Your task to perform on an android device: allow notifications from all sites in the chrome app Image 0: 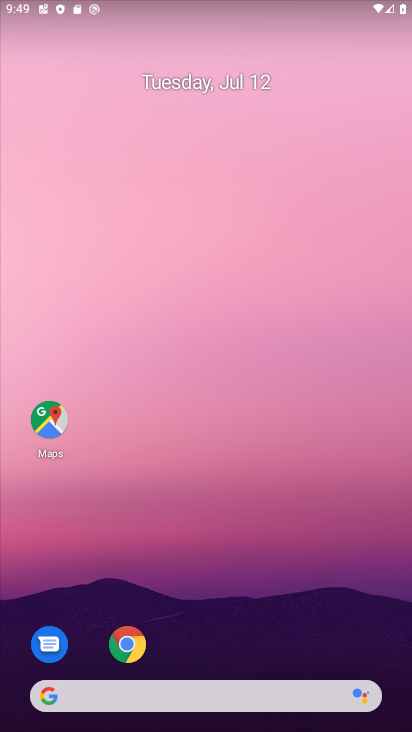
Step 0: click (120, 645)
Your task to perform on an android device: allow notifications from all sites in the chrome app Image 1: 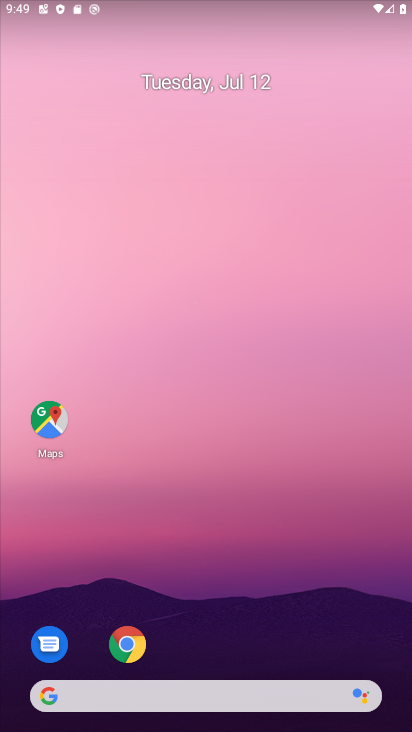
Step 1: click (120, 645)
Your task to perform on an android device: allow notifications from all sites in the chrome app Image 2: 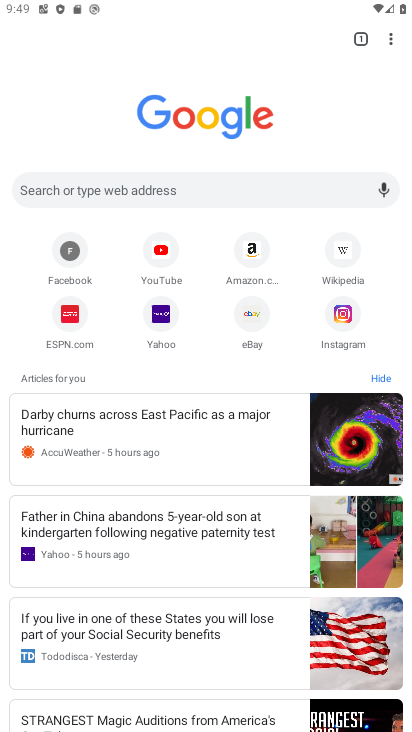
Step 2: click (393, 38)
Your task to perform on an android device: allow notifications from all sites in the chrome app Image 3: 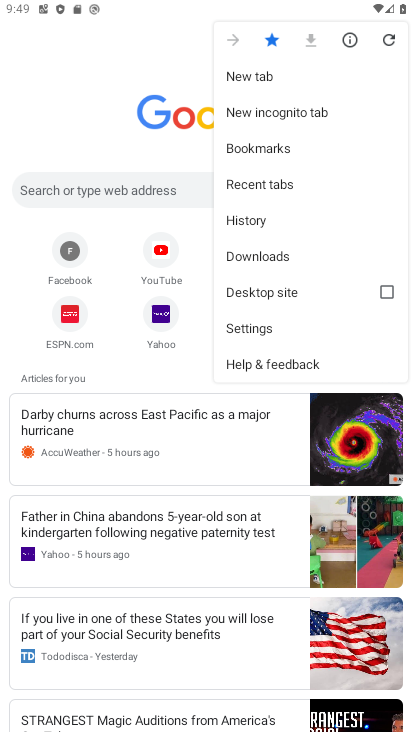
Step 3: click (264, 327)
Your task to perform on an android device: allow notifications from all sites in the chrome app Image 4: 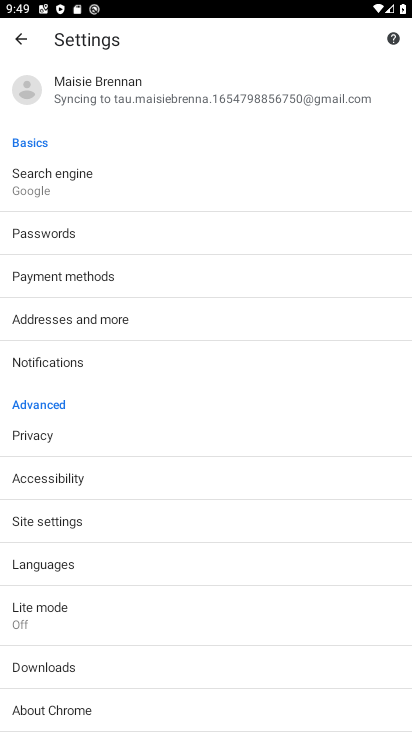
Step 4: click (97, 362)
Your task to perform on an android device: allow notifications from all sites in the chrome app Image 5: 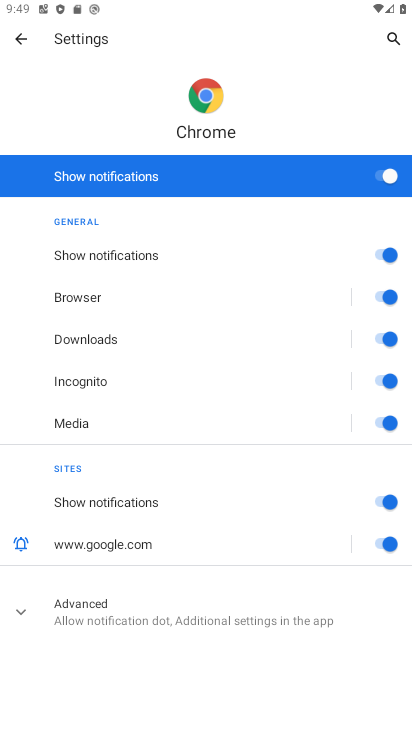
Step 5: task complete